Your task to perform on an android device: turn notification dots off Image 0: 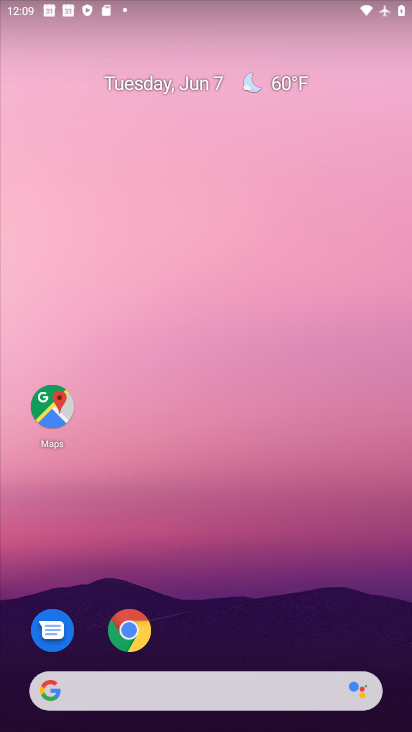
Step 0: drag from (345, 640) to (262, 73)
Your task to perform on an android device: turn notification dots off Image 1: 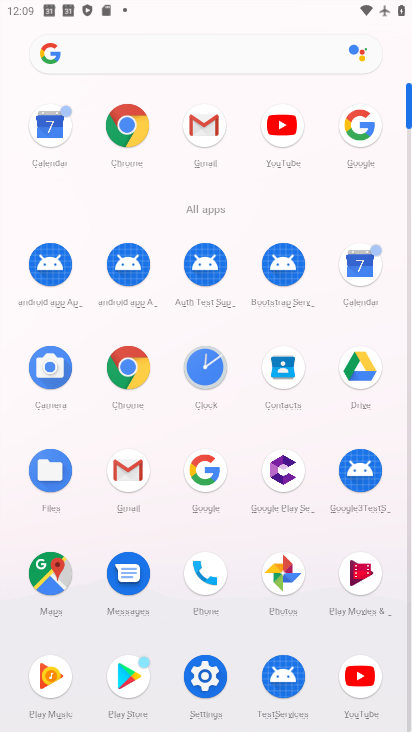
Step 1: click (186, 682)
Your task to perform on an android device: turn notification dots off Image 2: 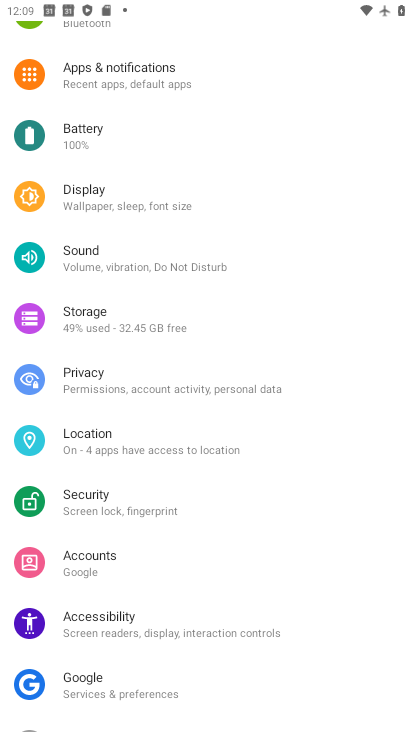
Step 2: click (143, 86)
Your task to perform on an android device: turn notification dots off Image 3: 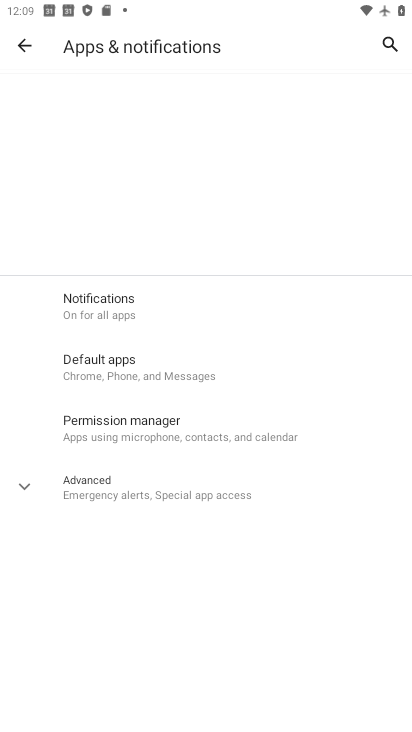
Step 3: click (183, 300)
Your task to perform on an android device: turn notification dots off Image 4: 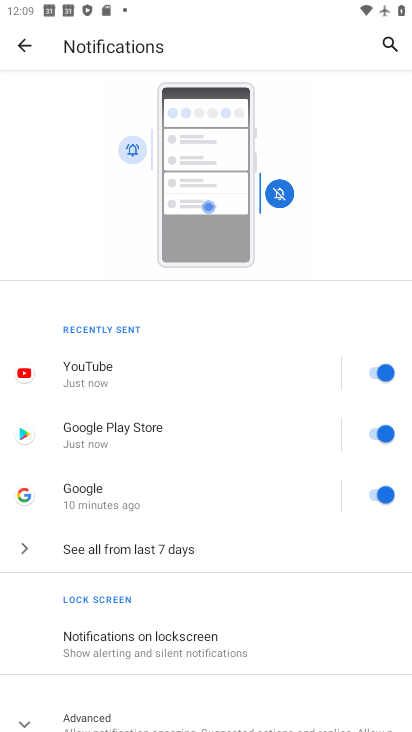
Step 4: drag from (207, 628) to (206, 206)
Your task to perform on an android device: turn notification dots off Image 5: 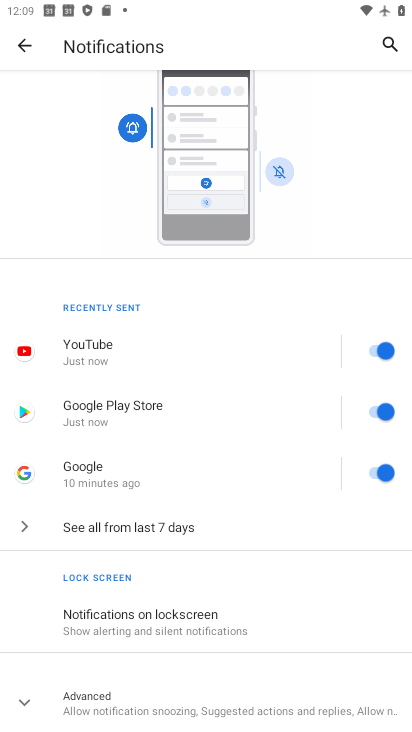
Step 5: click (121, 715)
Your task to perform on an android device: turn notification dots off Image 6: 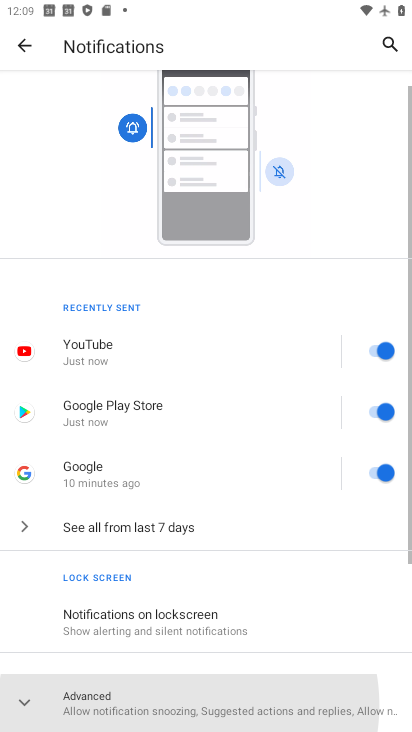
Step 6: drag from (169, 645) to (141, 263)
Your task to perform on an android device: turn notification dots off Image 7: 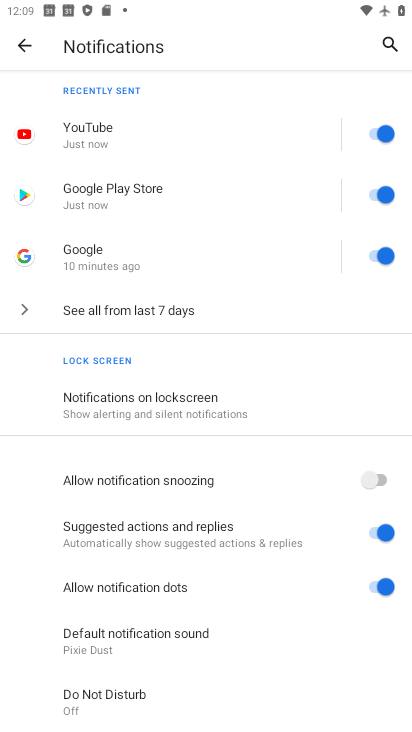
Step 7: click (365, 590)
Your task to perform on an android device: turn notification dots off Image 8: 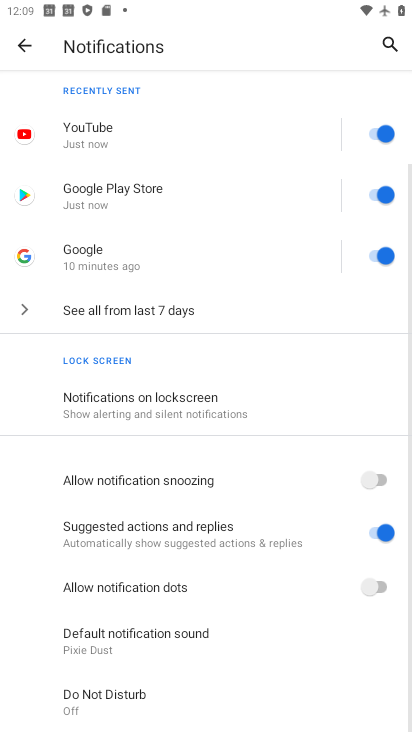
Step 8: task complete